Your task to perform on an android device: Show me popular games on the Play Store Image 0: 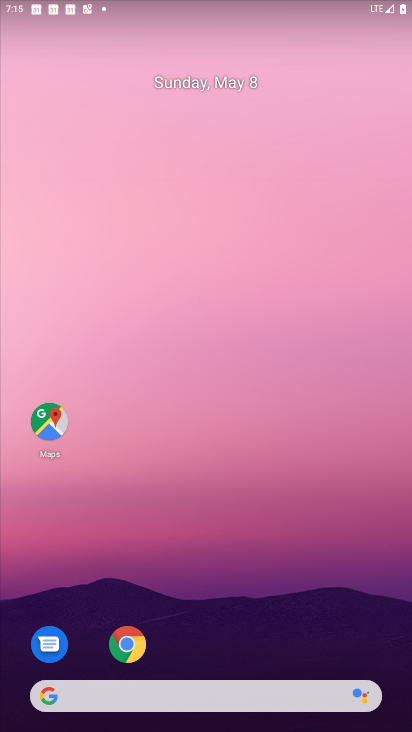
Step 0: drag from (317, 612) to (274, 472)
Your task to perform on an android device: Show me popular games on the Play Store Image 1: 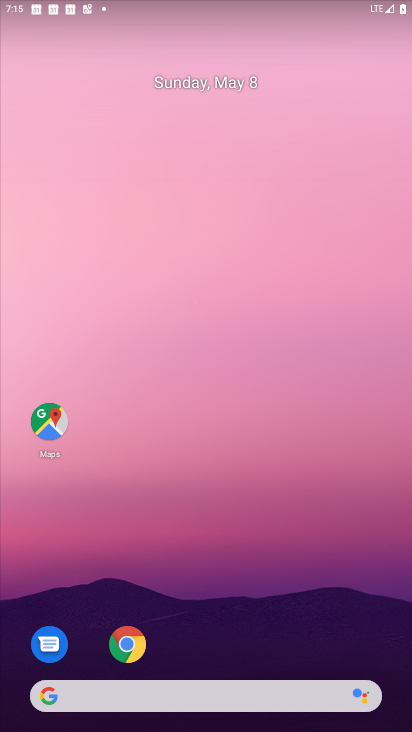
Step 1: drag from (336, 693) to (223, 193)
Your task to perform on an android device: Show me popular games on the Play Store Image 2: 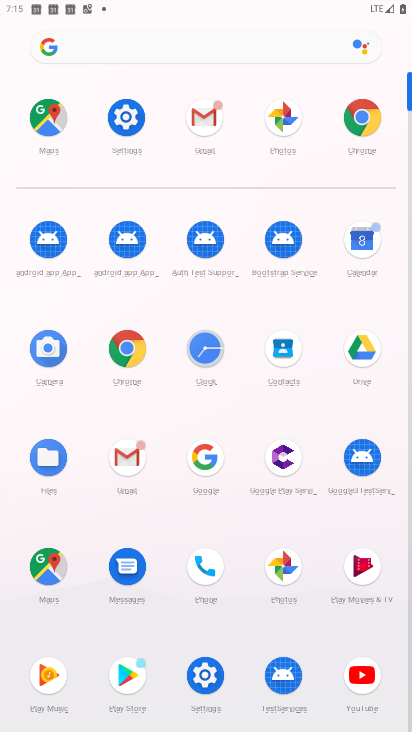
Step 2: click (126, 689)
Your task to perform on an android device: Show me popular games on the Play Store Image 3: 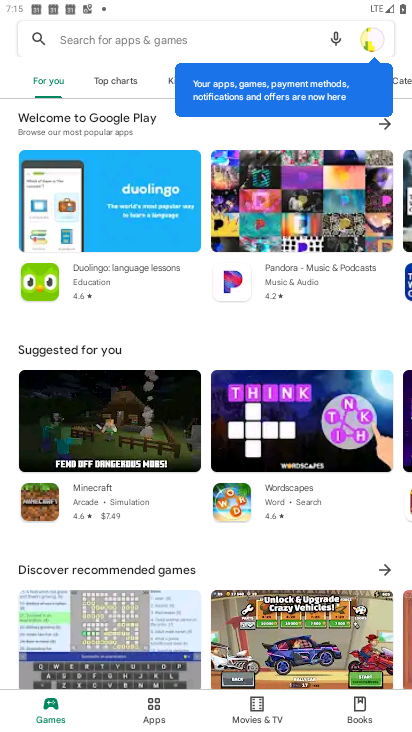
Step 3: task complete